Your task to perform on an android device: allow cookies in the chrome app Image 0: 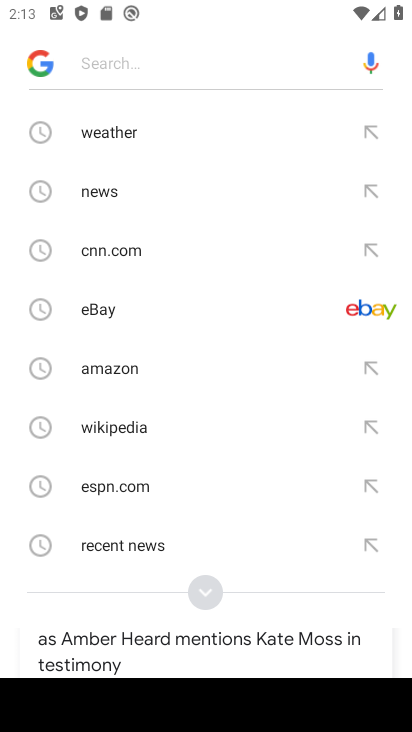
Step 0: press home button
Your task to perform on an android device: allow cookies in the chrome app Image 1: 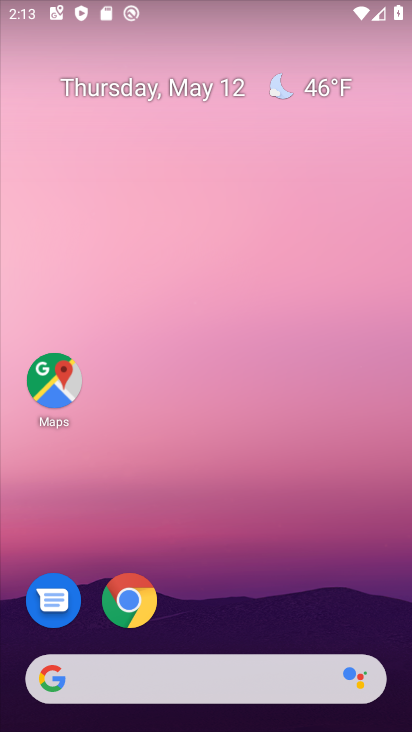
Step 1: click (140, 583)
Your task to perform on an android device: allow cookies in the chrome app Image 2: 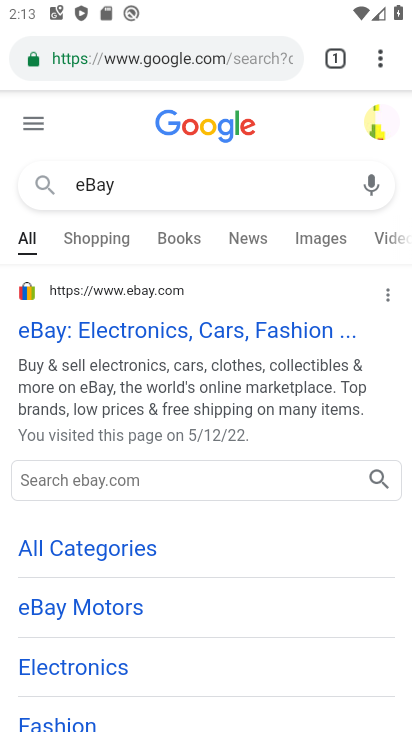
Step 2: click (375, 50)
Your task to perform on an android device: allow cookies in the chrome app Image 3: 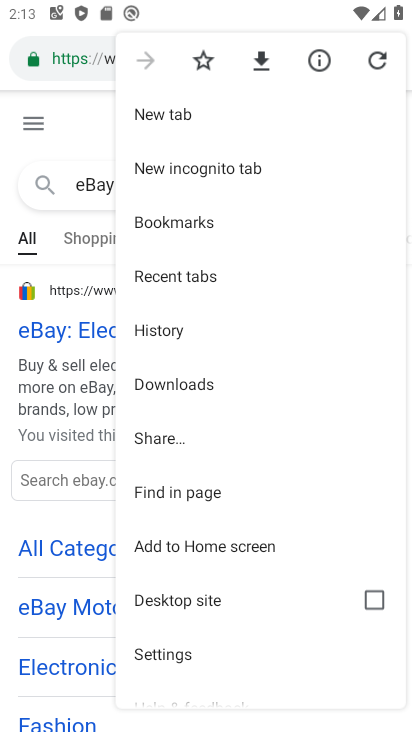
Step 3: click (163, 646)
Your task to perform on an android device: allow cookies in the chrome app Image 4: 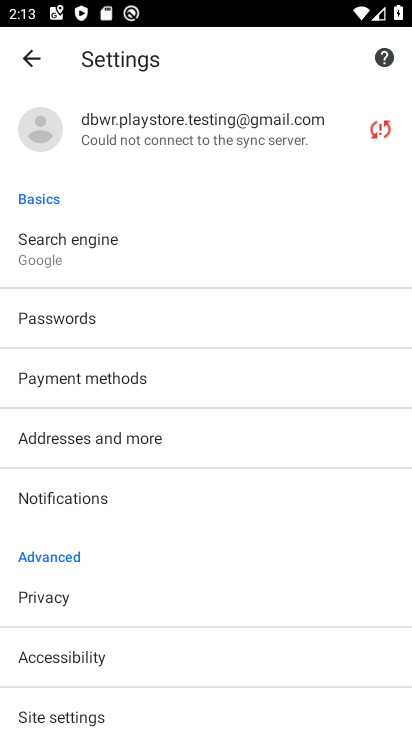
Step 4: drag from (151, 530) to (198, 210)
Your task to perform on an android device: allow cookies in the chrome app Image 5: 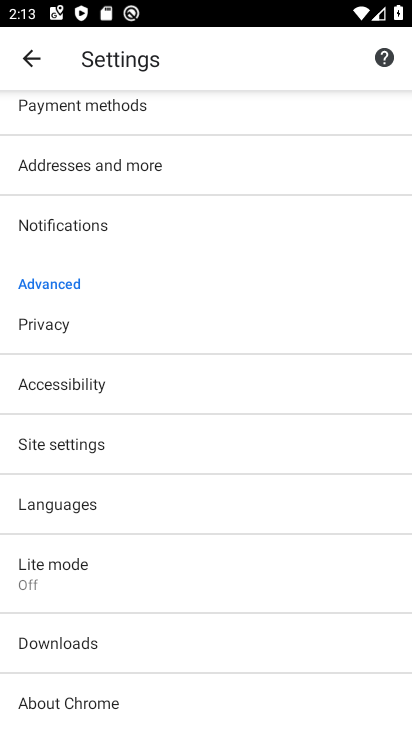
Step 5: click (83, 453)
Your task to perform on an android device: allow cookies in the chrome app Image 6: 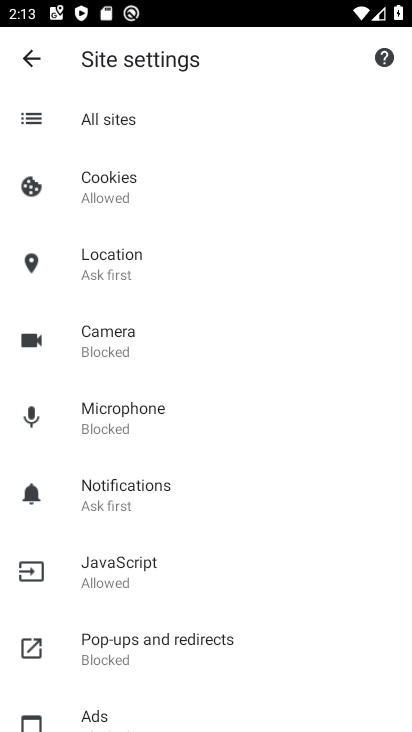
Step 6: click (127, 180)
Your task to perform on an android device: allow cookies in the chrome app Image 7: 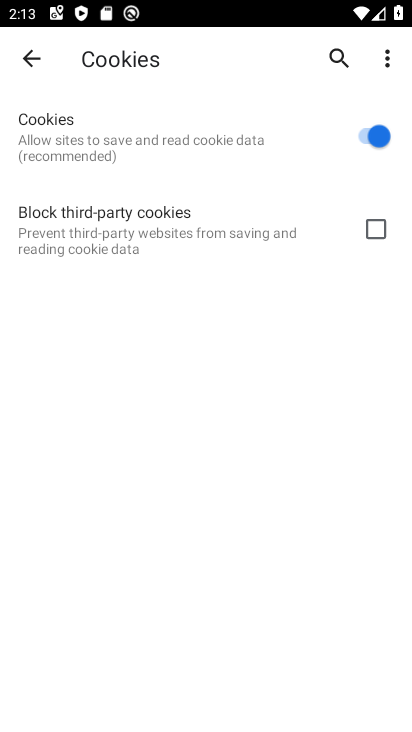
Step 7: task complete